Your task to perform on an android device: find which apps use the phone's location Image 0: 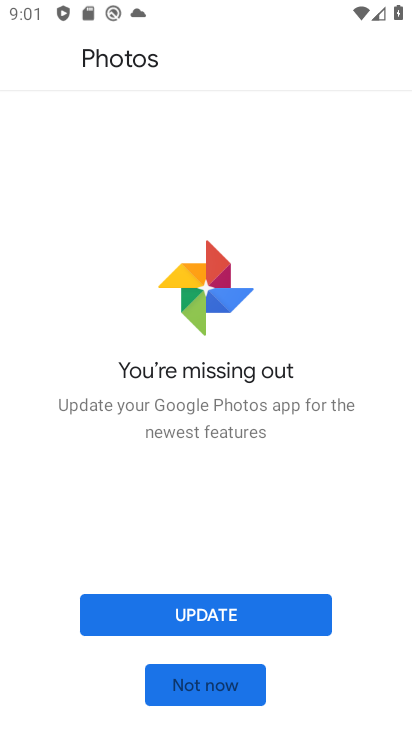
Step 0: press home button
Your task to perform on an android device: find which apps use the phone's location Image 1: 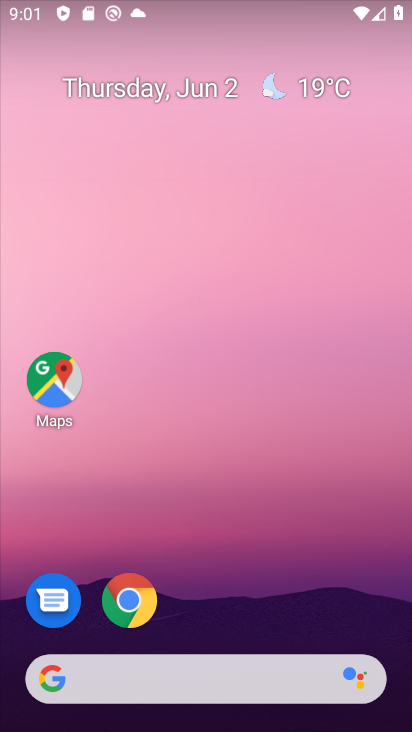
Step 1: drag from (185, 617) to (175, 259)
Your task to perform on an android device: find which apps use the phone's location Image 2: 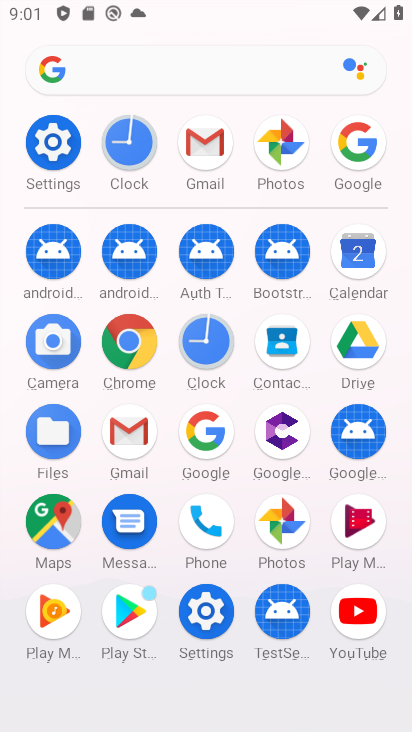
Step 2: click (54, 169)
Your task to perform on an android device: find which apps use the phone's location Image 3: 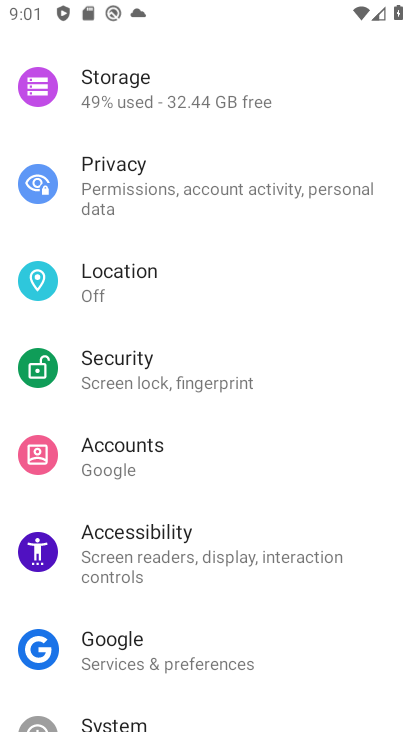
Step 3: click (138, 266)
Your task to perform on an android device: find which apps use the phone's location Image 4: 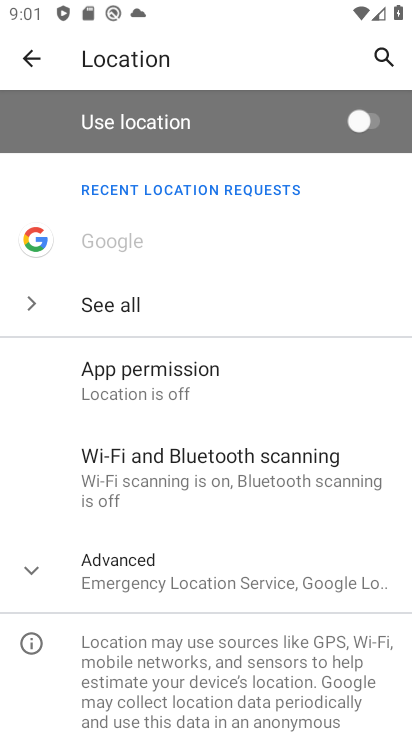
Step 4: click (160, 354)
Your task to perform on an android device: find which apps use the phone's location Image 5: 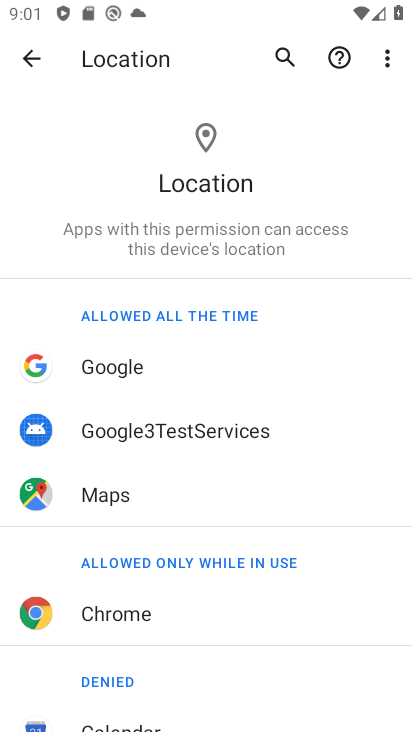
Step 5: task complete